Your task to perform on an android device: Open display settings Image 0: 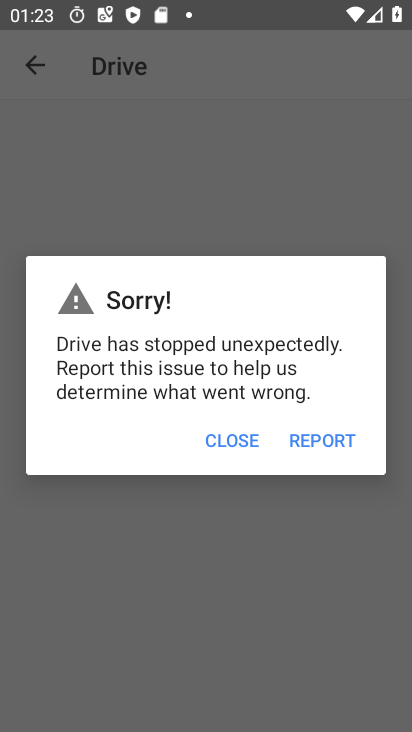
Step 0: press home button
Your task to perform on an android device: Open display settings Image 1: 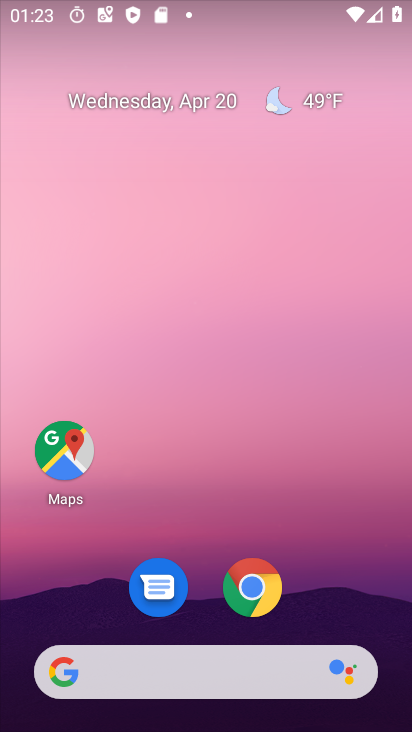
Step 1: drag from (361, 635) to (348, 24)
Your task to perform on an android device: Open display settings Image 2: 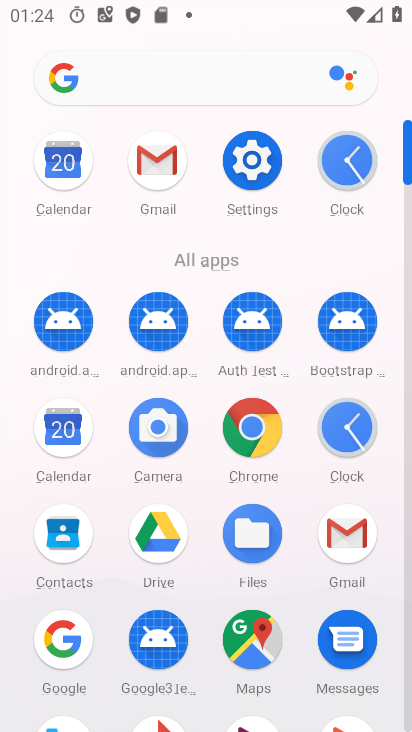
Step 2: click (255, 161)
Your task to perform on an android device: Open display settings Image 3: 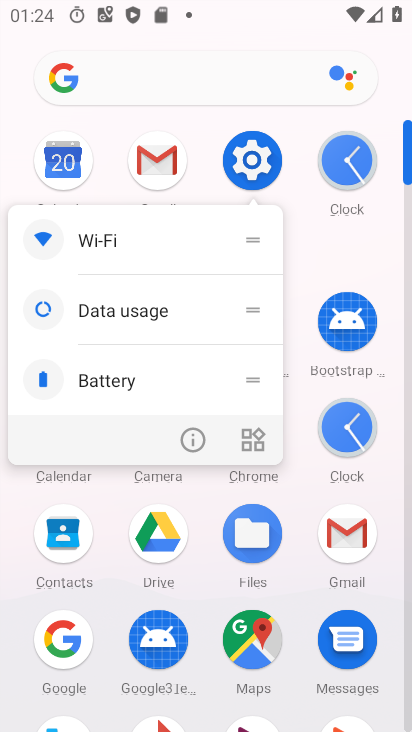
Step 3: click (254, 160)
Your task to perform on an android device: Open display settings Image 4: 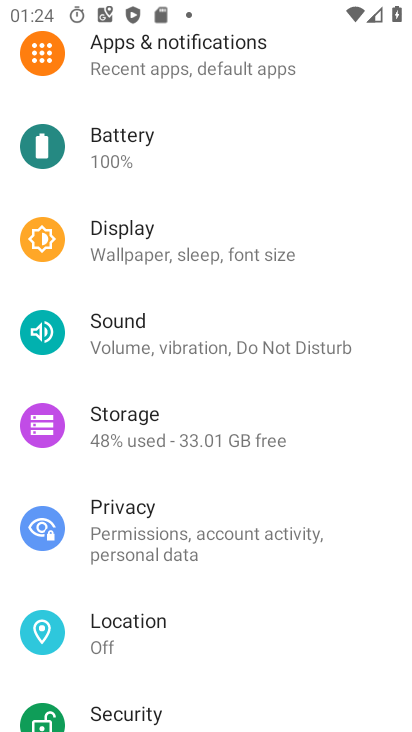
Step 4: click (134, 236)
Your task to perform on an android device: Open display settings Image 5: 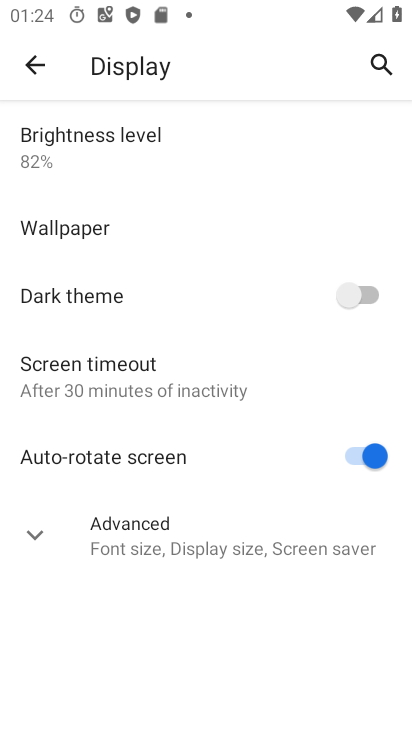
Step 5: task complete